Your task to perform on an android device: Go to Amazon Image 0: 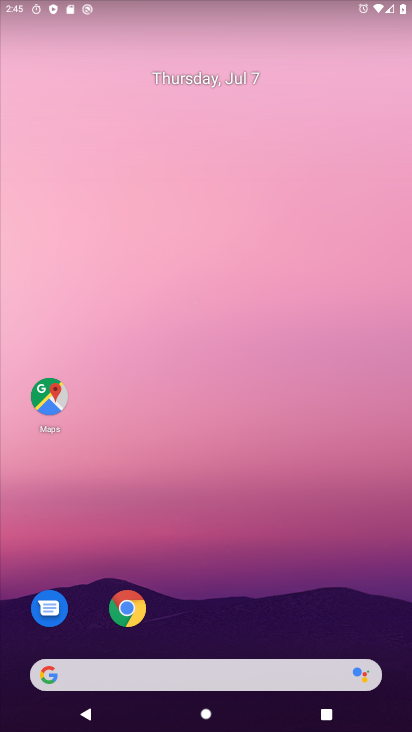
Step 0: click (129, 608)
Your task to perform on an android device: Go to Amazon Image 1: 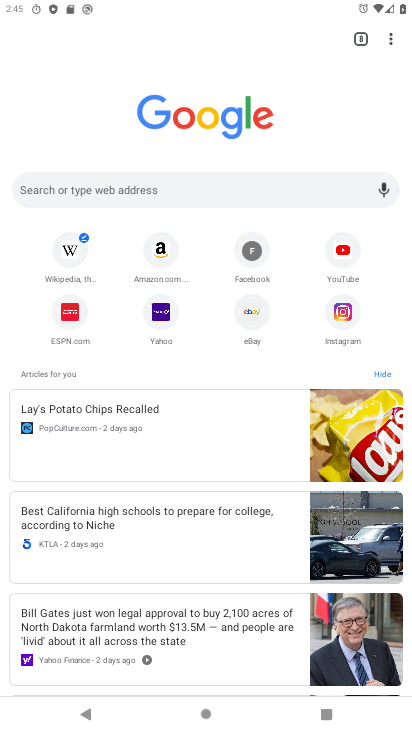
Step 1: click (158, 251)
Your task to perform on an android device: Go to Amazon Image 2: 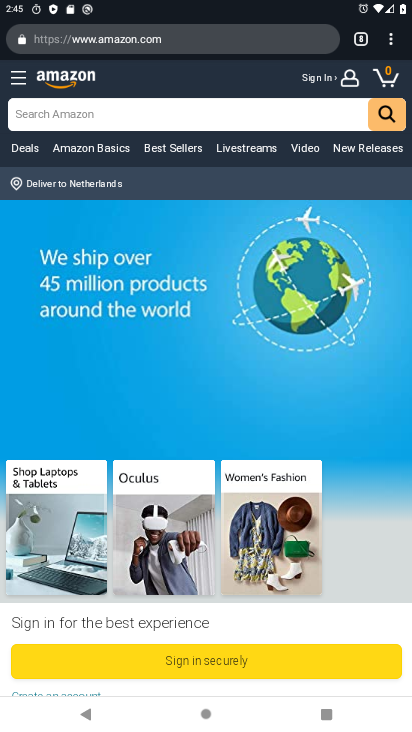
Step 2: task complete